Your task to perform on an android device: Show me the alarms in the clock app Image 0: 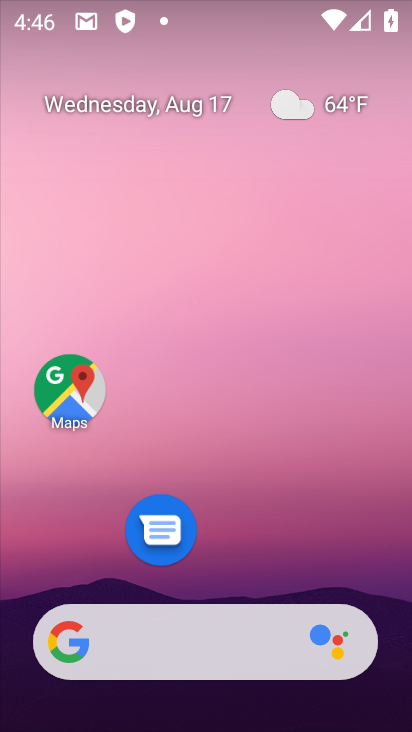
Step 0: drag from (197, 93) to (218, 21)
Your task to perform on an android device: Show me the alarms in the clock app Image 1: 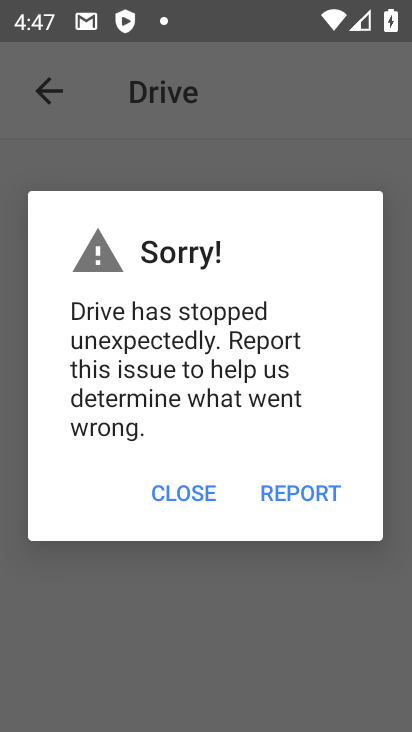
Step 1: press home button
Your task to perform on an android device: Show me the alarms in the clock app Image 2: 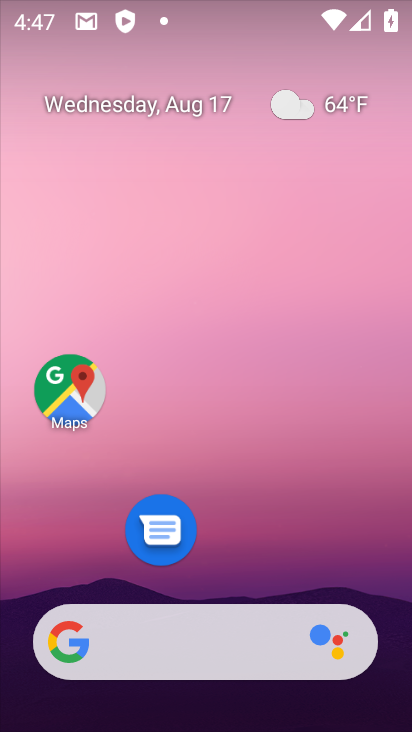
Step 2: drag from (224, 575) to (227, 190)
Your task to perform on an android device: Show me the alarms in the clock app Image 3: 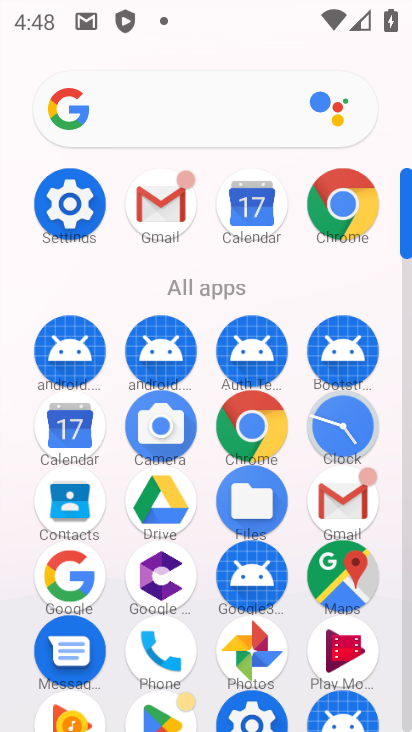
Step 3: click (352, 423)
Your task to perform on an android device: Show me the alarms in the clock app Image 4: 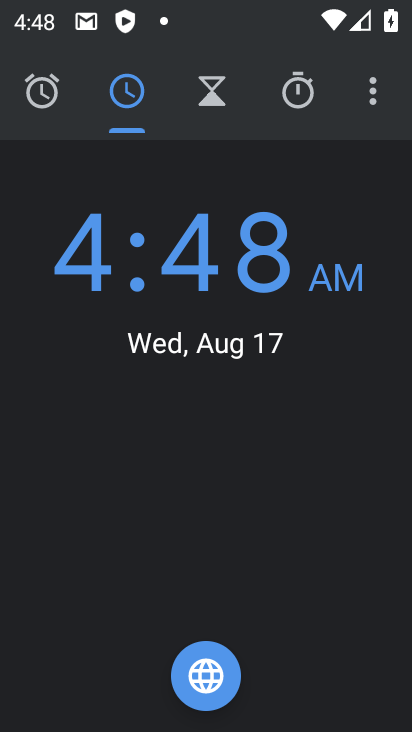
Step 4: click (42, 90)
Your task to perform on an android device: Show me the alarms in the clock app Image 5: 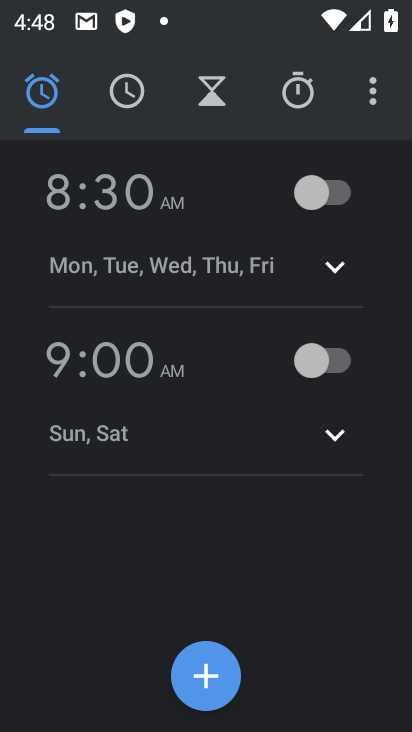
Step 5: task complete